Your task to perform on an android device: Open Amazon Image 0: 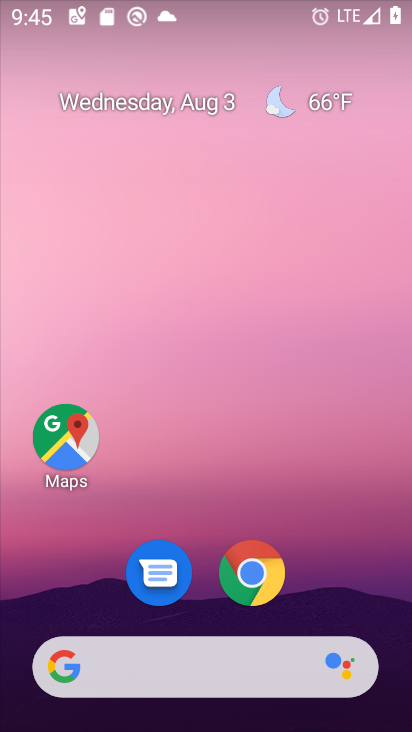
Step 0: click (256, 582)
Your task to perform on an android device: Open Amazon Image 1: 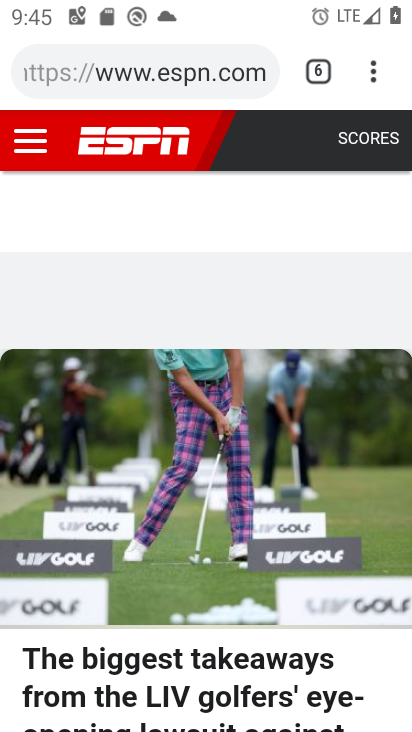
Step 1: click (174, 64)
Your task to perform on an android device: Open Amazon Image 2: 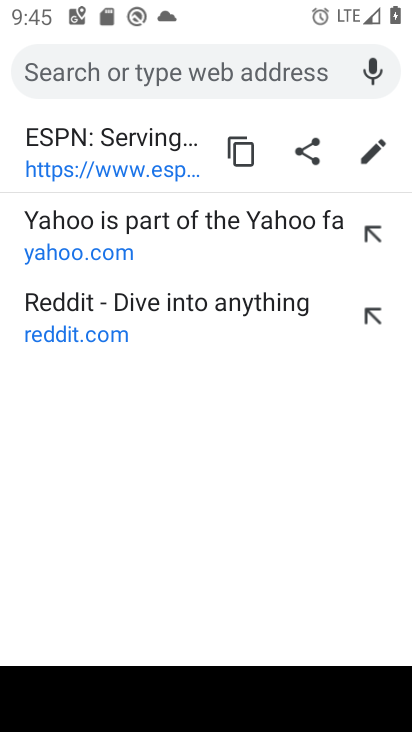
Step 2: type "amozon"
Your task to perform on an android device: Open Amazon Image 3: 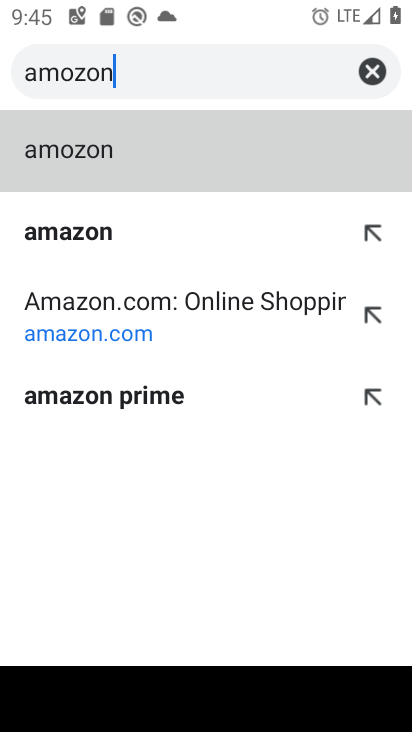
Step 3: click (51, 311)
Your task to perform on an android device: Open Amazon Image 4: 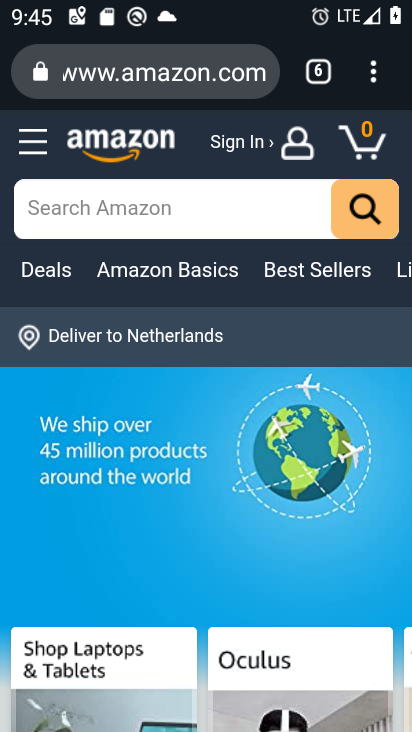
Step 4: task complete